Your task to perform on an android device: Go to Wikipedia Image 0: 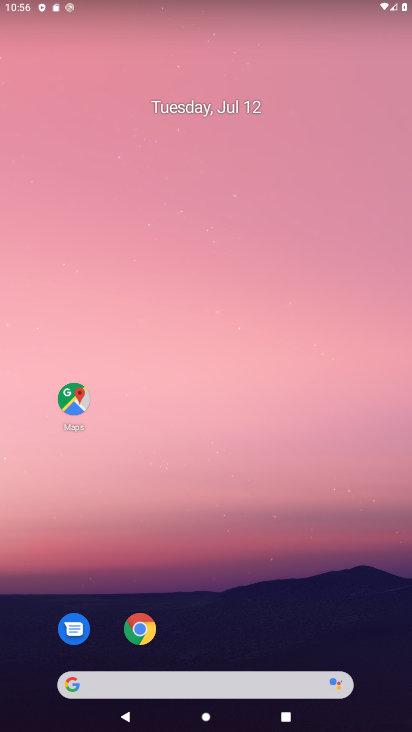
Step 0: click (143, 628)
Your task to perform on an android device: Go to Wikipedia Image 1: 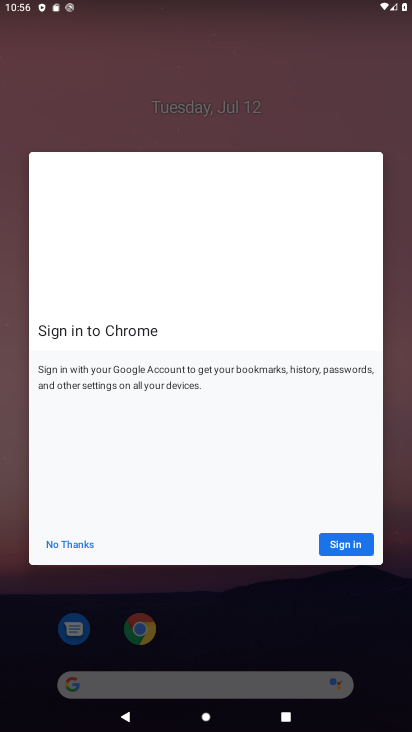
Step 1: click (72, 547)
Your task to perform on an android device: Go to Wikipedia Image 2: 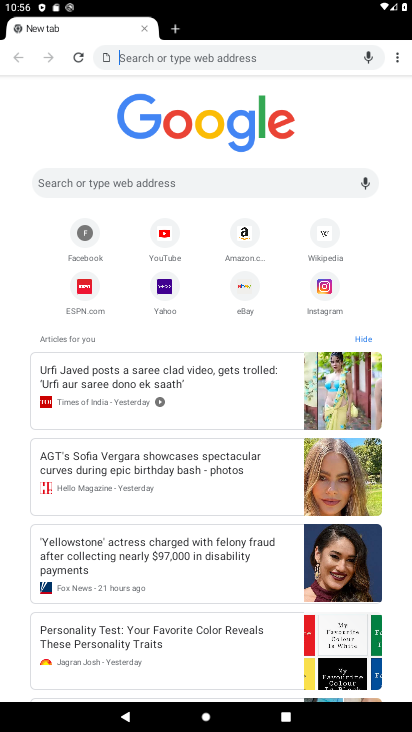
Step 2: click (326, 235)
Your task to perform on an android device: Go to Wikipedia Image 3: 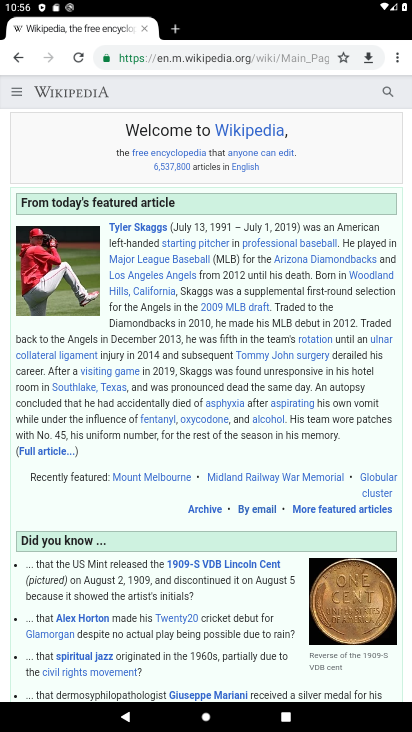
Step 3: task complete